Your task to perform on an android device: Open Google Maps and go to "Timeline" Image 0: 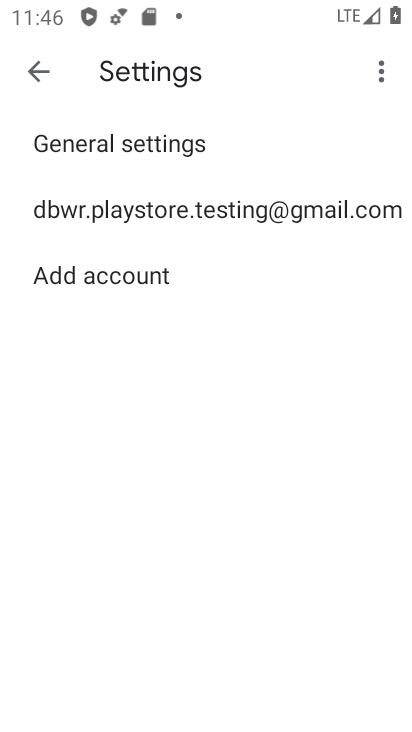
Step 0: press home button
Your task to perform on an android device: Open Google Maps and go to "Timeline" Image 1: 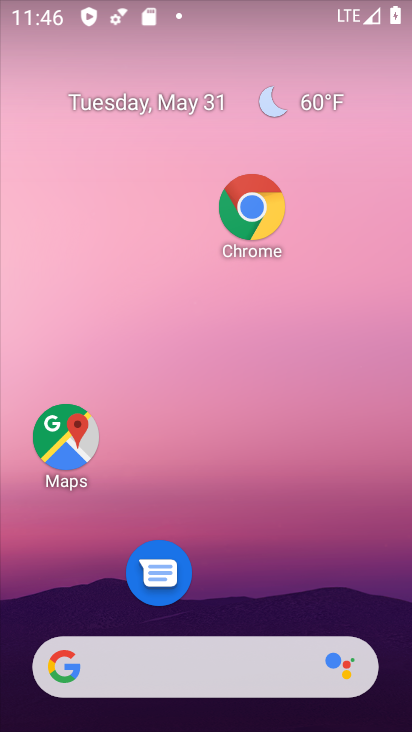
Step 1: click (54, 457)
Your task to perform on an android device: Open Google Maps and go to "Timeline" Image 2: 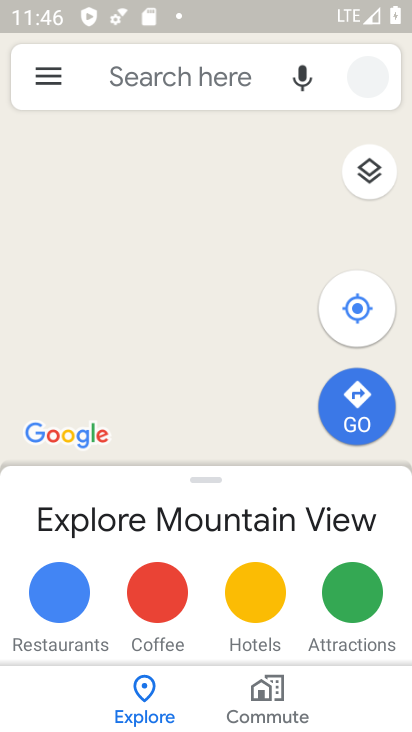
Step 2: click (41, 92)
Your task to perform on an android device: Open Google Maps and go to "Timeline" Image 3: 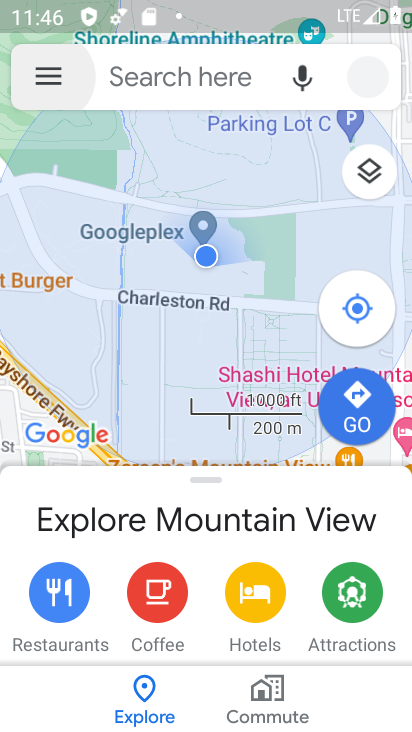
Step 3: click (58, 67)
Your task to perform on an android device: Open Google Maps and go to "Timeline" Image 4: 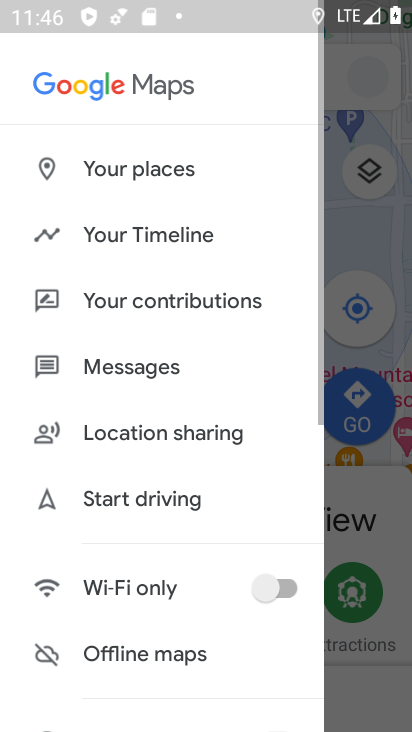
Step 4: click (152, 219)
Your task to perform on an android device: Open Google Maps and go to "Timeline" Image 5: 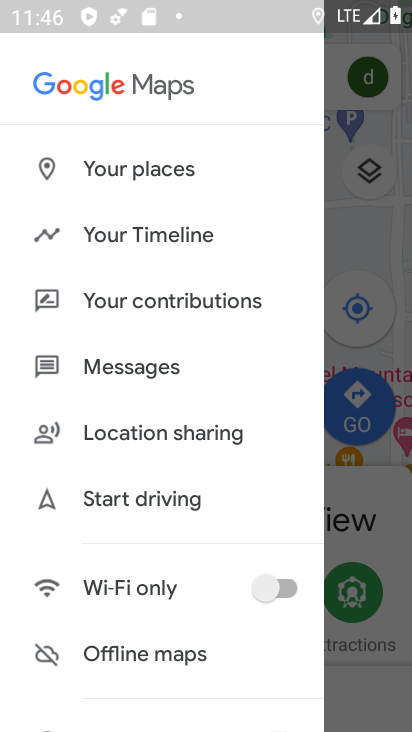
Step 5: click (152, 221)
Your task to perform on an android device: Open Google Maps and go to "Timeline" Image 6: 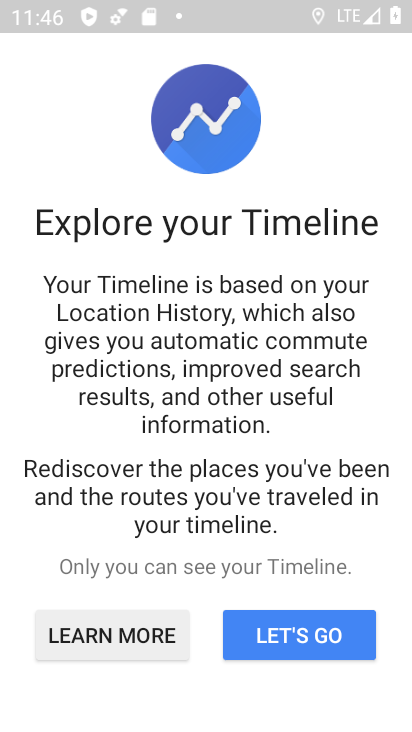
Step 6: click (269, 630)
Your task to perform on an android device: Open Google Maps and go to "Timeline" Image 7: 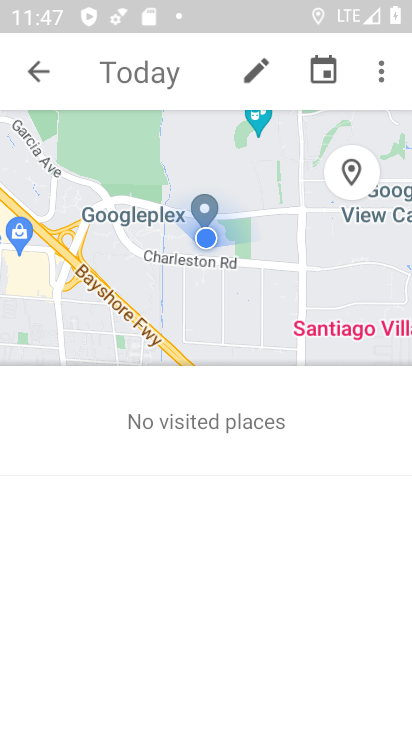
Step 7: task complete